Your task to perform on an android device: clear history in the chrome app Image 0: 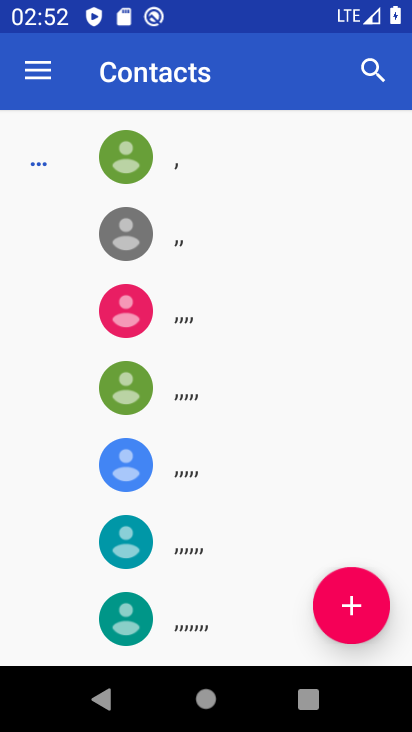
Step 0: press home button
Your task to perform on an android device: clear history in the chrome app Image 1: 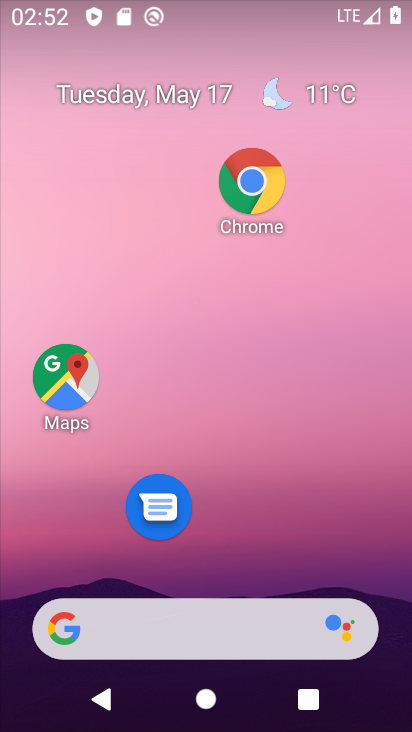
Step 1: click (256, 182)
Your task to perform on an android device: clear history in the chrome app Image 2: 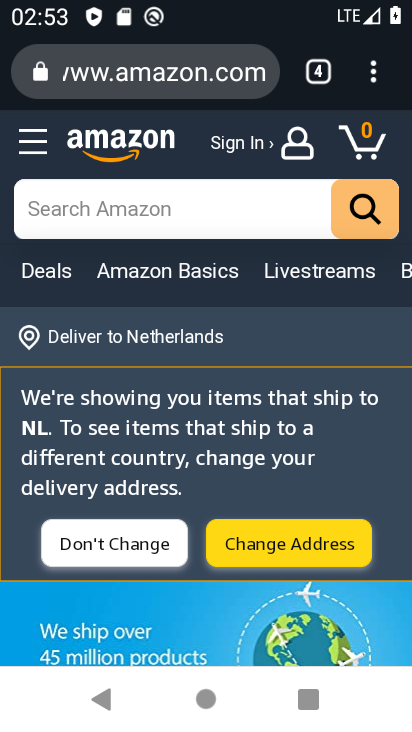
Step 2: click (362, 80)
Your task to perform on an android device: clear history in the chrome app Image 3: 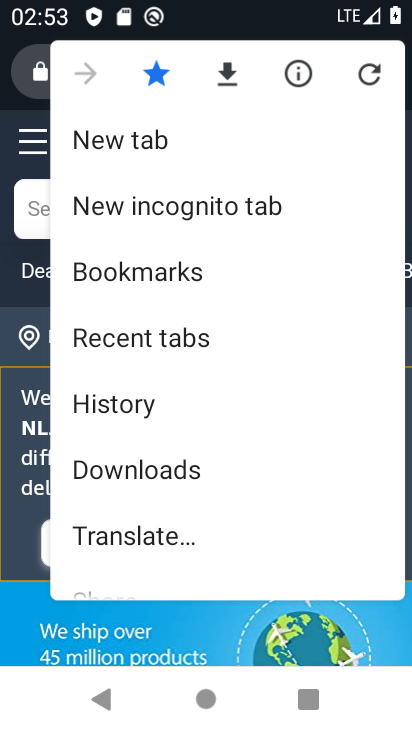
Step 3: click (101, 412)
Your task to perform on an android device: clear history in the chrome app Image 4: 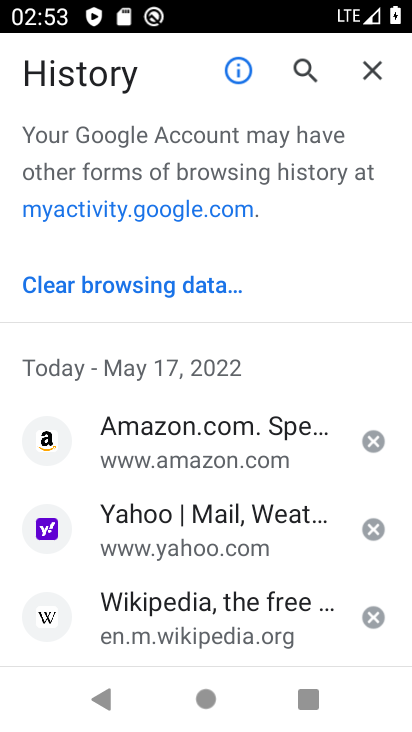
Step 4: click (141, 279)
Your task to perform on an android device: clear history in the chrome app Image 5: 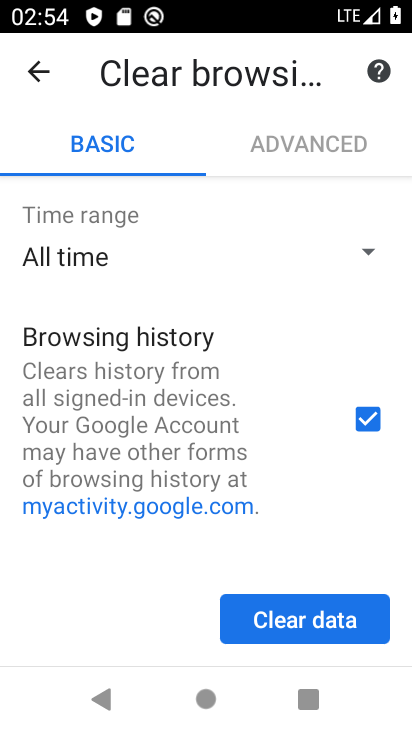
Step 5: click (312, 610)
Your task to perform on an android device: clear history in the chrome app Image 6: 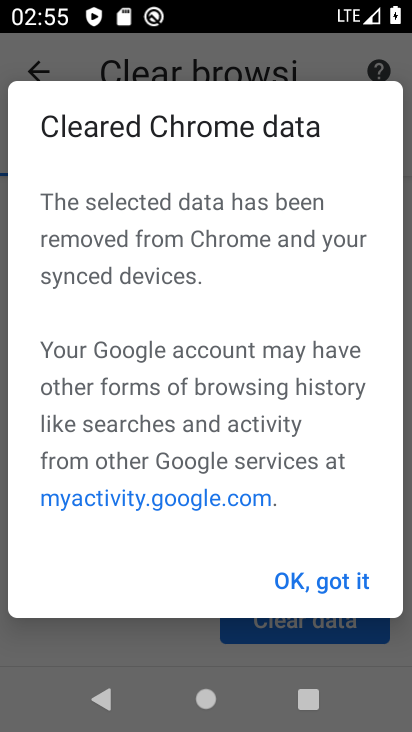
Step 6: click (308, 591)
Your task to perform on an android device: clear history in the chrome app Image 7: 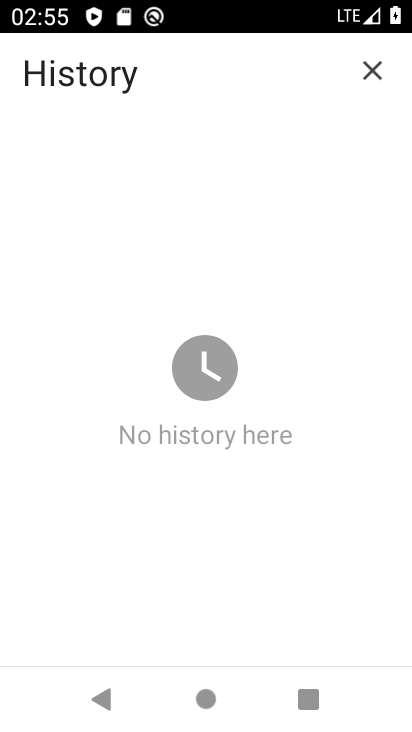
Step 7: task complete